Your task to perform on an android device: open app "Paramount+ | Peak Streaming" (install if not already installed) and enter user name: "fostered@yahoo.com" and password: "strong" Image 0: 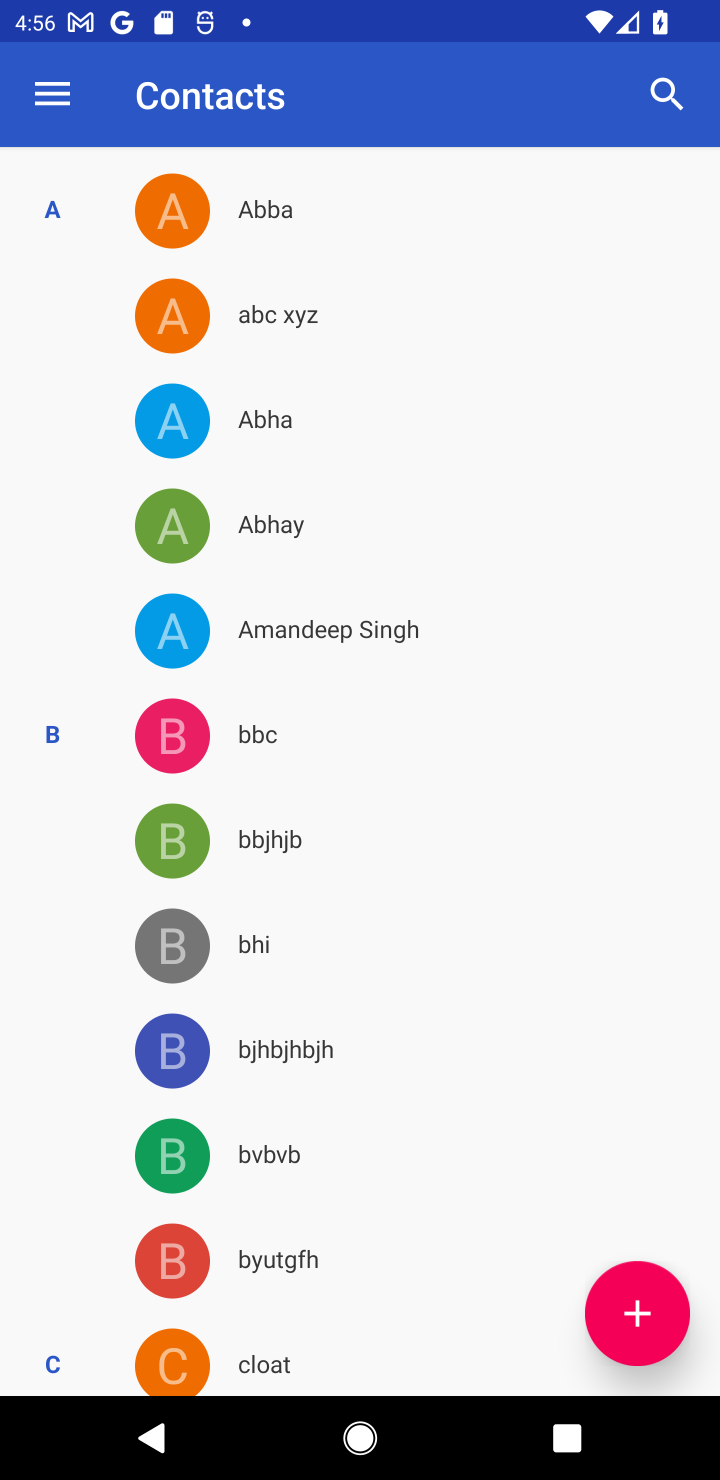
Step 0: press home button
Your task to perform on an android device: open app "Paramount+ | Peak Streaming" (install if not already installed) and enter user name: "fostered@yahoo.com" and password: "strong" Image 1: 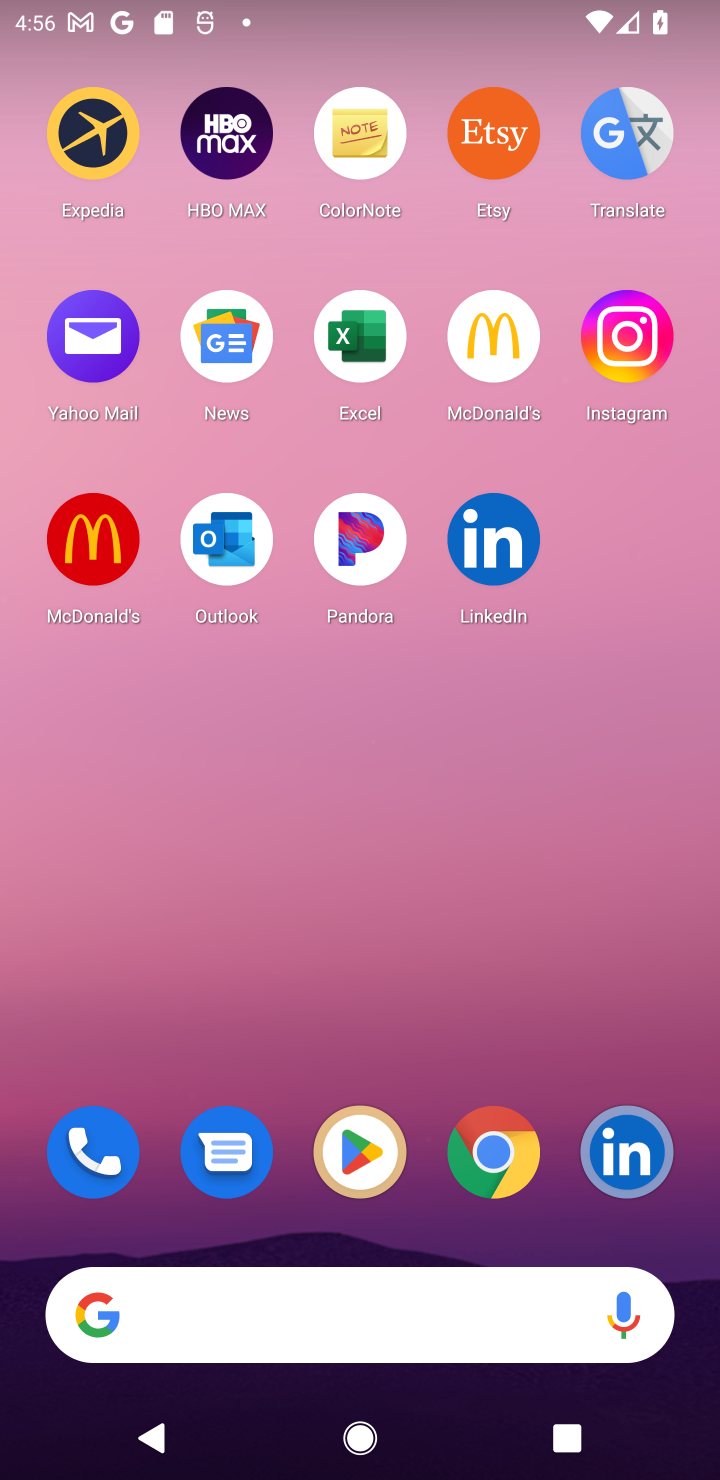
Step 1: click (332, 1135)
Your task to perform on an android device: open app "Paramount+ | Peak Streaming" (install if not already installed) and enter user name: "fostered@yahoo.com" and password: "strong" Image 2: 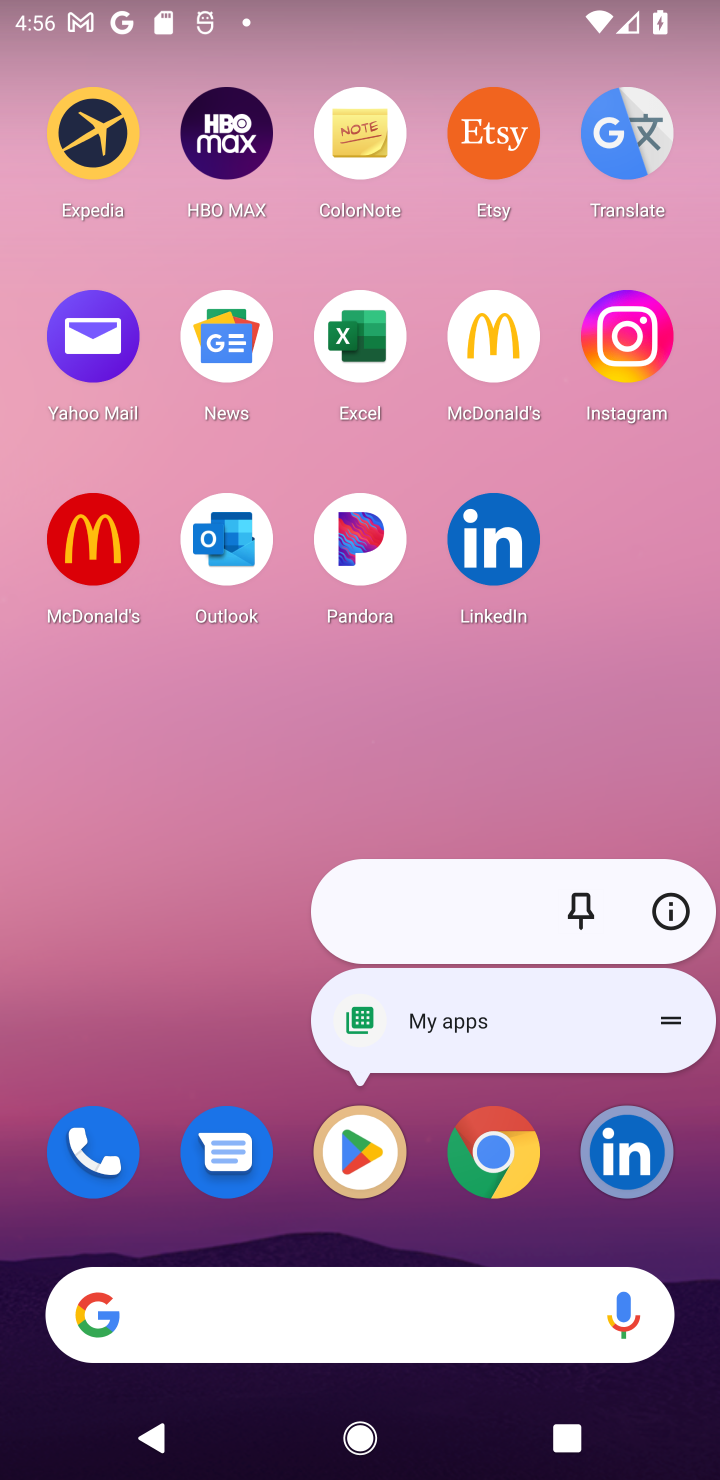
Step 2: click (368, 1172)
Your task to perform on an android device: open app "Paramount+ | Peak Streaming" (install if not already installed) and enter user name: "fostered@yahoo.com" and password: "strong" Image 3: 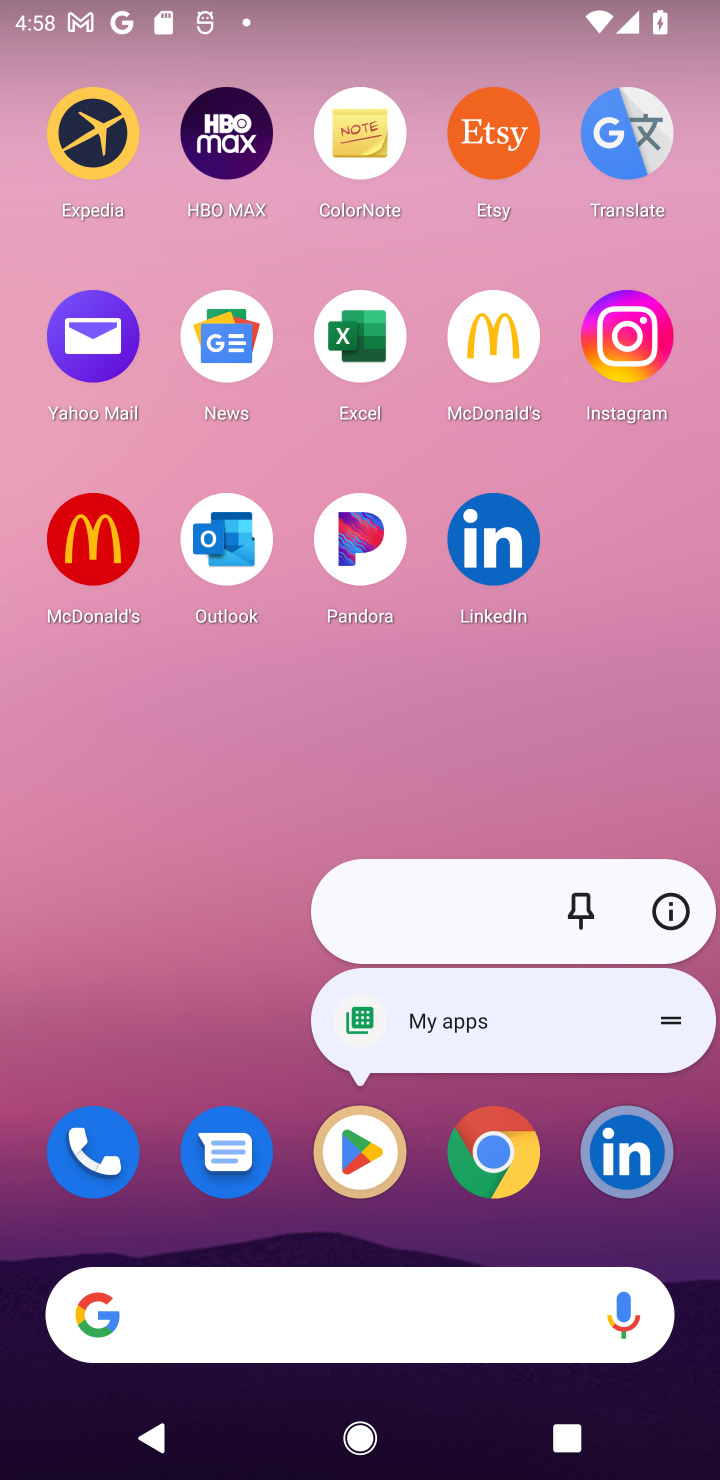
Step 3: click (395, 1147)
Your task to perform on an android device: open app "Paramount+ | Peak Streaming" (install if not already installed) and enter user name: "fostered@yahoo.com" and password: "strong" Image 4: 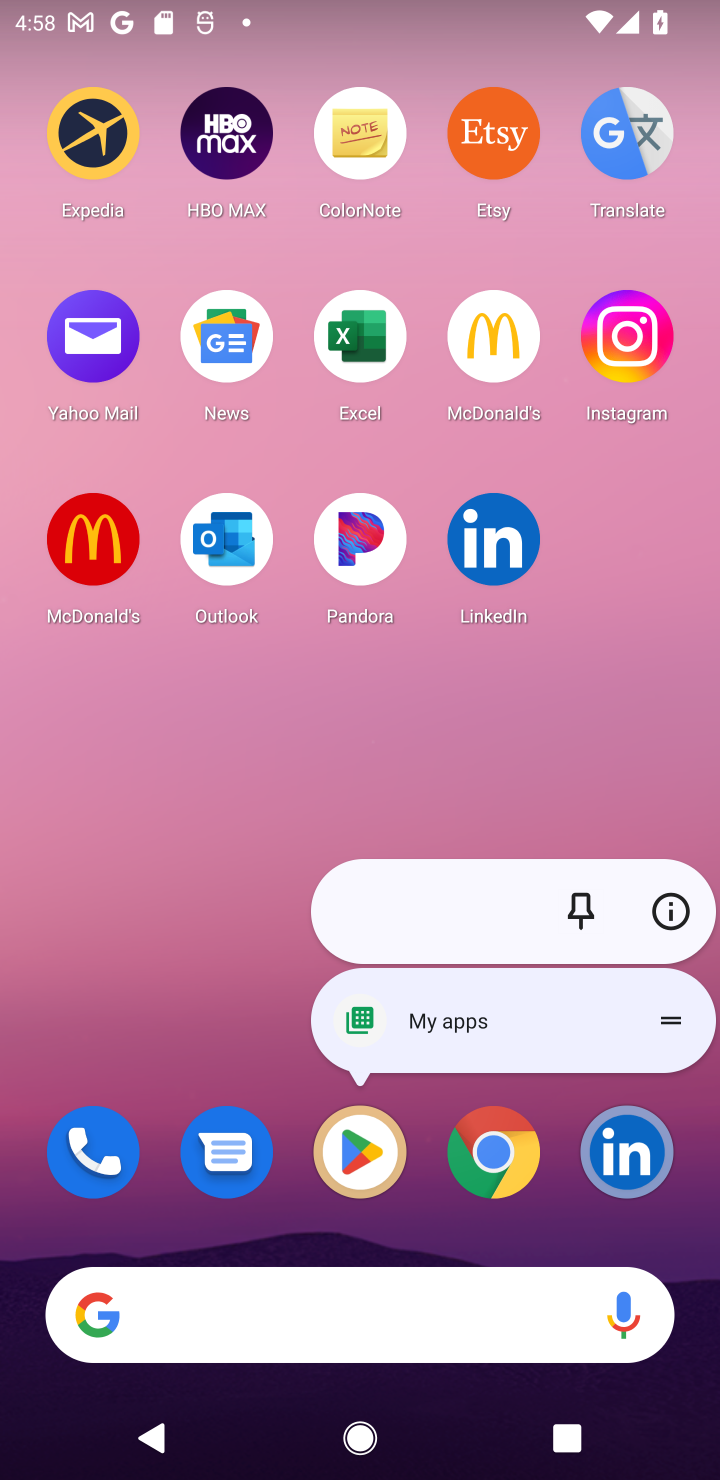
Step 4: click (300, 1150)
Your task to perform on an android device: open app "Paramount+ | Peak Streaming" (install if not already installed) and enter user name: "fostered@yahoo.com" and password: "strong" Image 5: 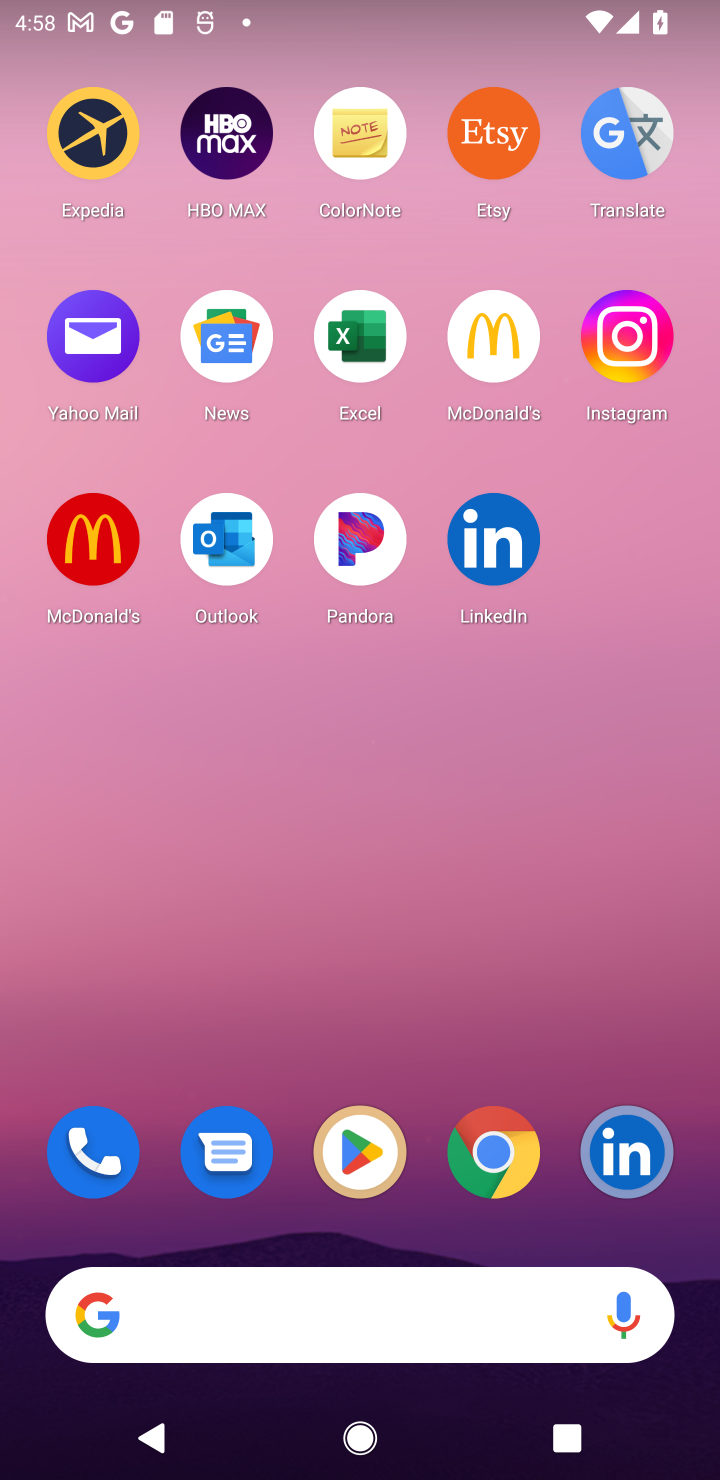
Step 5: click (379, 1151)
Your task to perform on an android device: open app "Paramount+ | Peak Streaming" (install if not already installed) and enter user name: "fostered@yahoo.com" and password: "strong" Image 6: 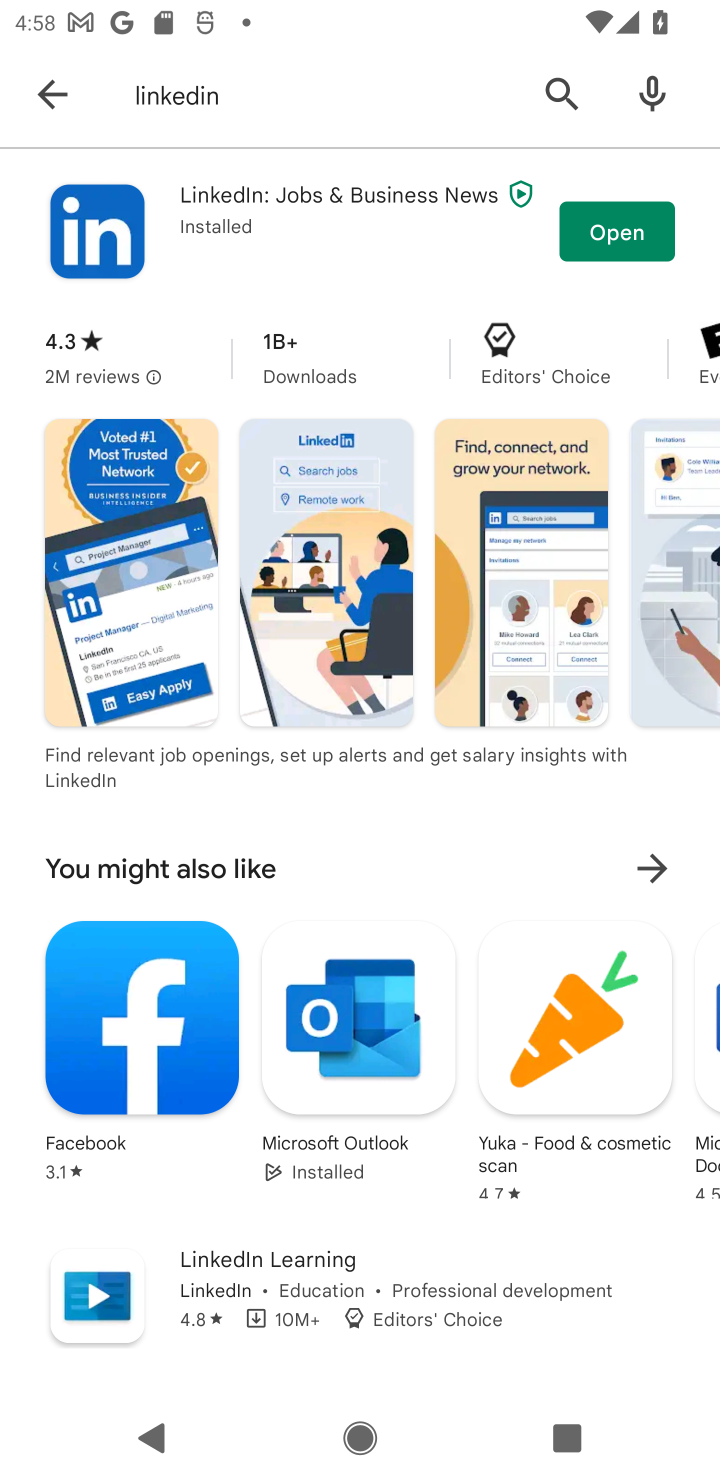
Step 6: click (44, 94)
Your task to perform on an android device: open app "Paramount+ | Peak Streaming" (install if not already installed) and enter user name: "fostered@yahoo.com" and password: "strong" Image 7: 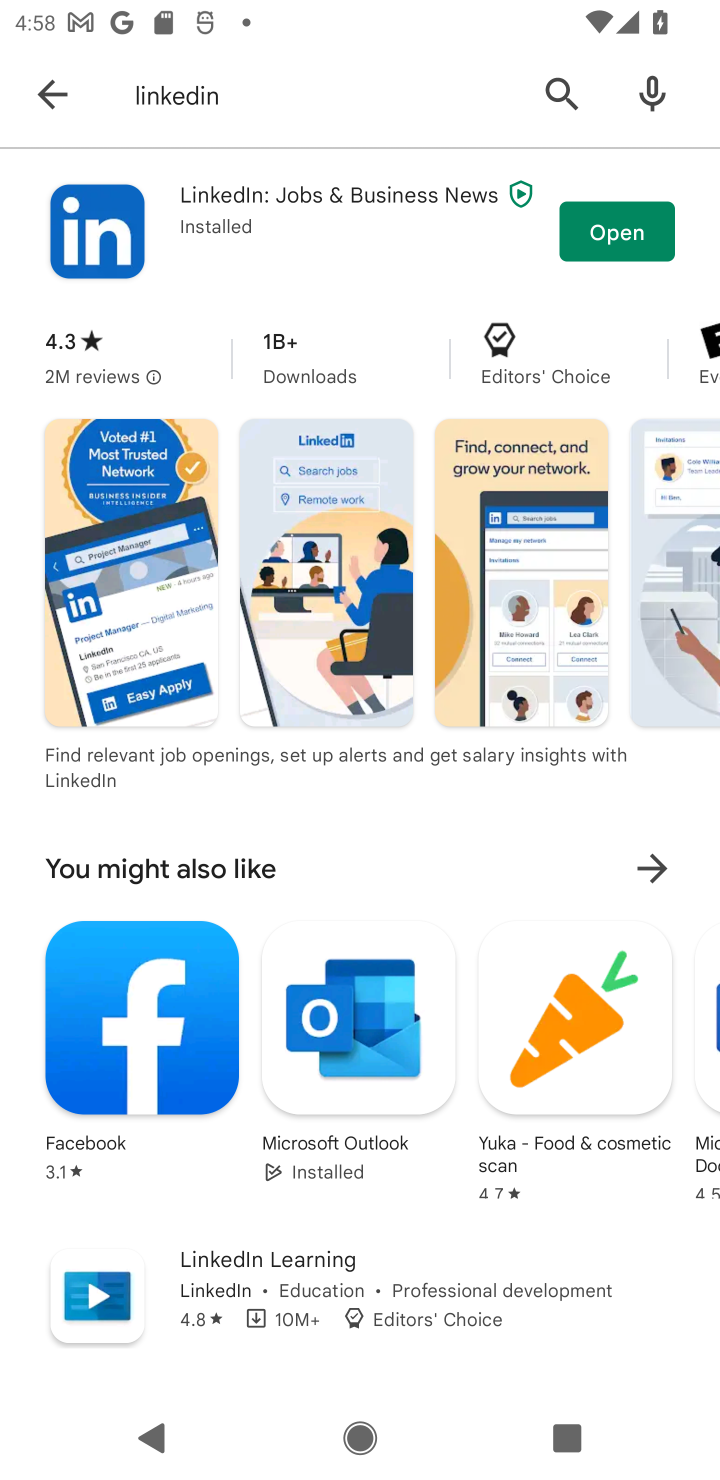
Step 7: click (554, 99)
Your task to perform on an android device: open app "Paramount+ | Peak Streaming" (install if not already installed) and enter user name: "fostered@yahoo.com" and password: "strong" Image 8: 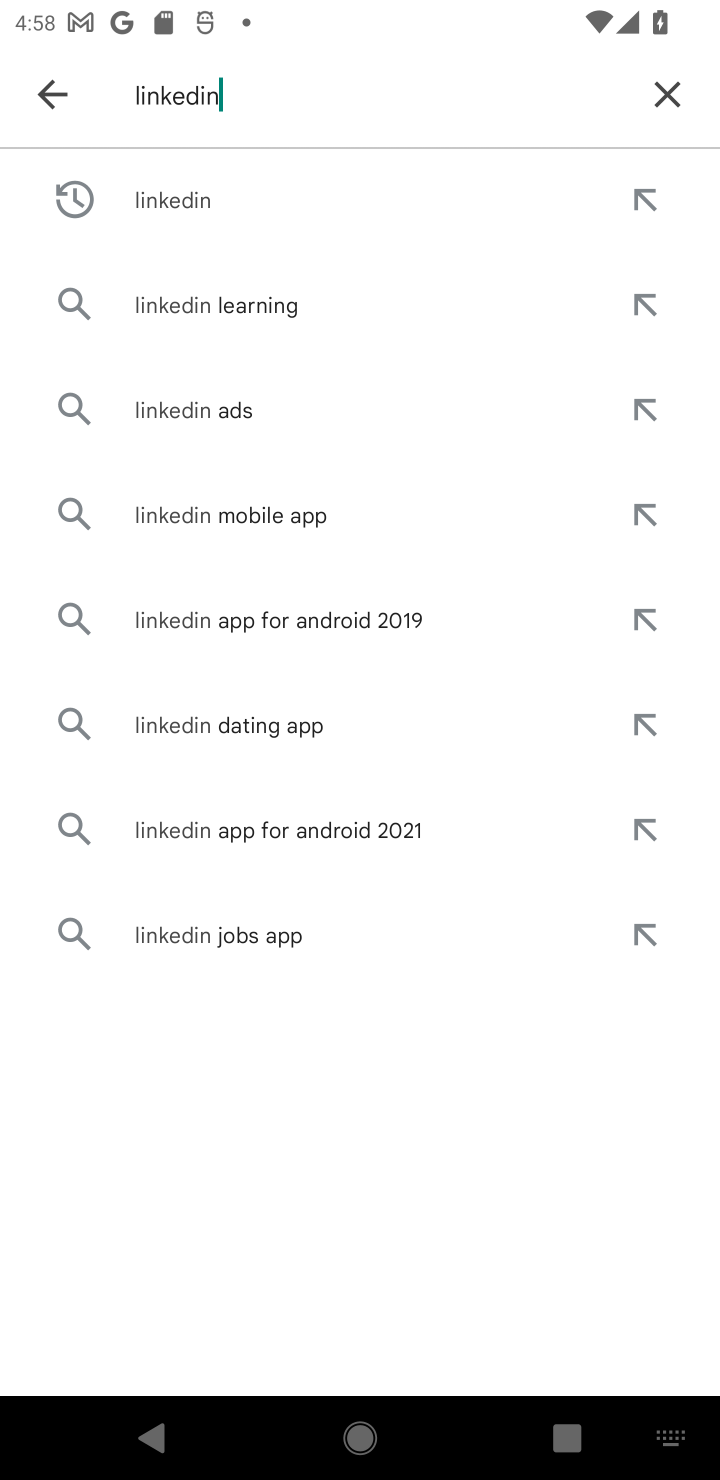
Step 8: click (658, 85)
Your task to perform on an android device: open app "Paramount+ | Peak Streaming" (install if not already installed) and enter user name: "fostered@yahoo.com" and password: "strong" Image 9: 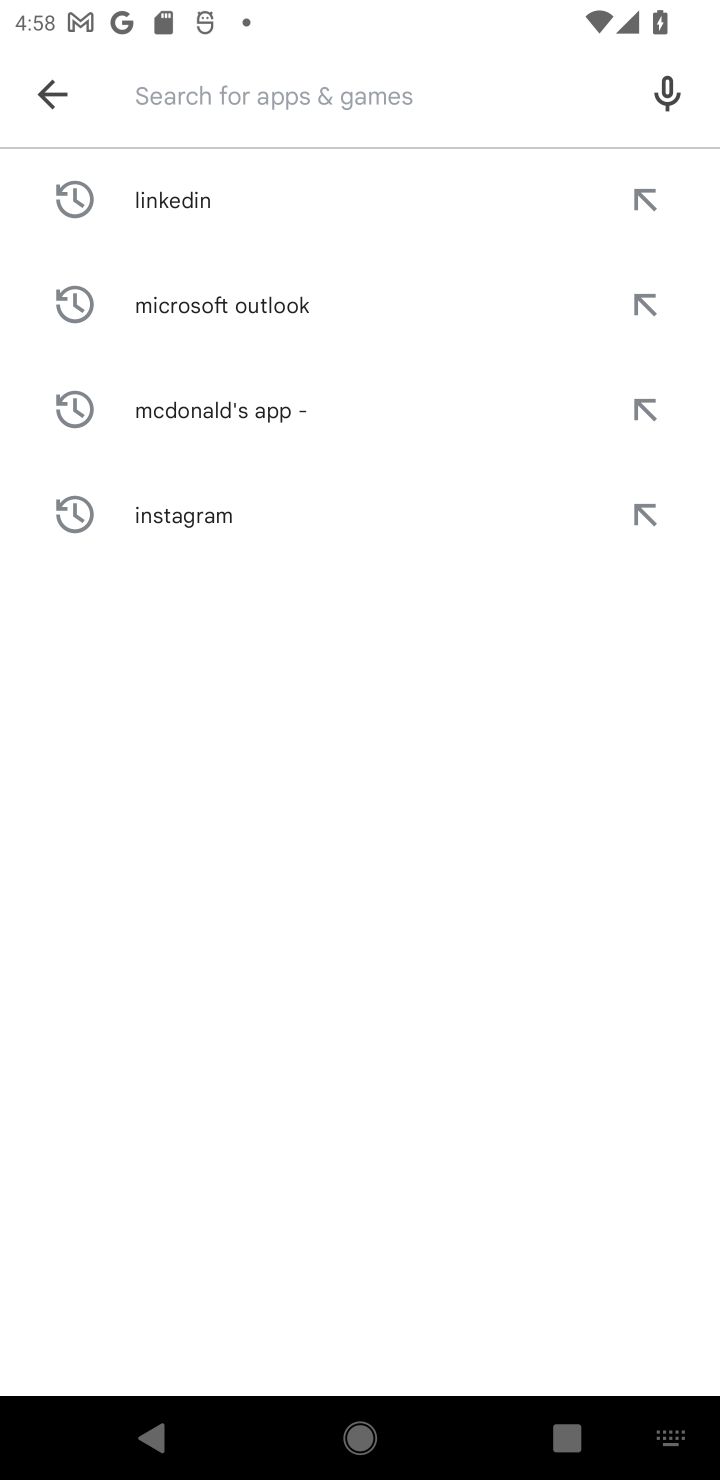
Step 9: type "Paramount+ | Peak Streaming"
Your task to perform on an android device: open app "Paramount+ | Peak Streaming" (install if not already installed) and enter user name: "fostered@yahoo.com" and password: "strong" Image 10: 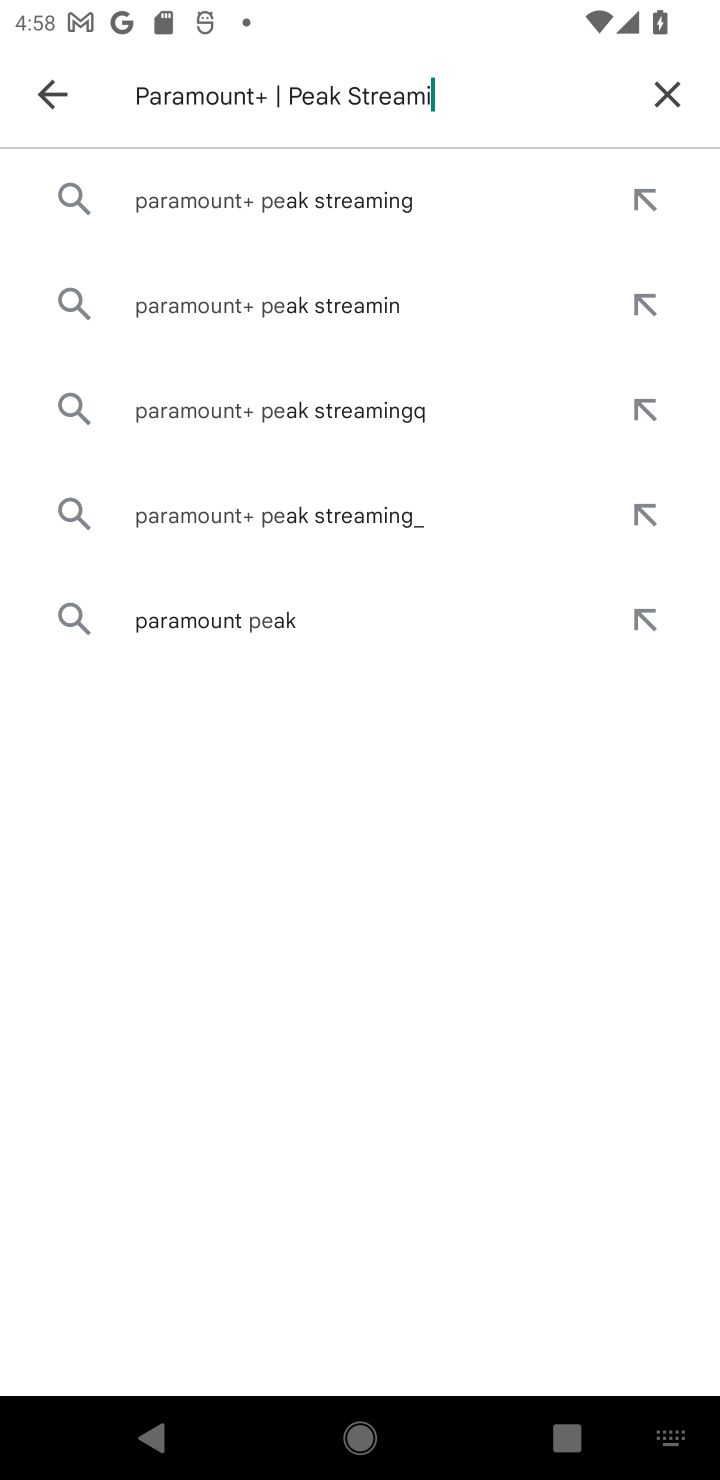
Step 10: type ""
Your task to perform on an android device: open app "Paramount+ | Peak Streaming" (install if not already installed) and enter user name: "fostered@yahoo.com" and password: "strong" Image 11: 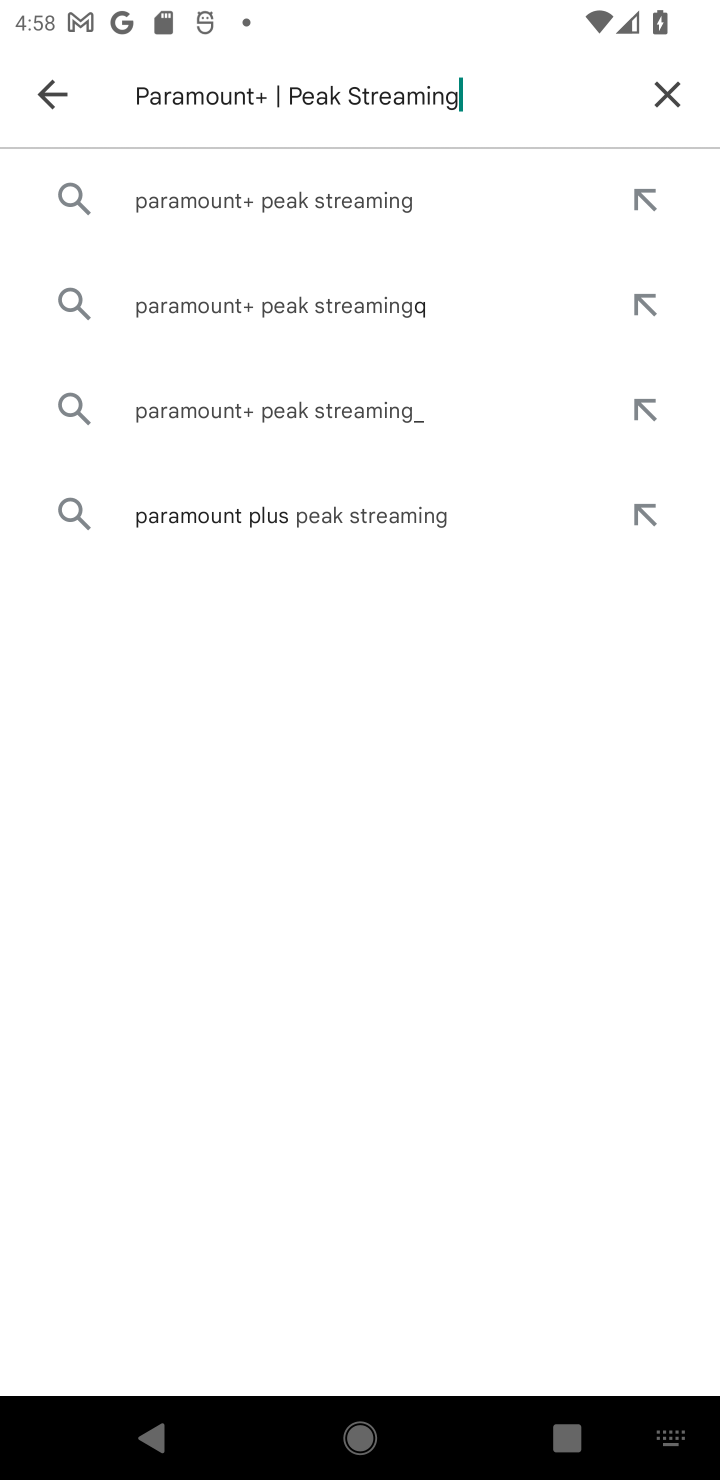
Step 11: click (258, 213)
Your task to perform on an android device: open app "Paramount+ | Peak Streaming" (install if not already installed) and enter user name: "fostered@yahoo.com" and password: "strong" Image 12: 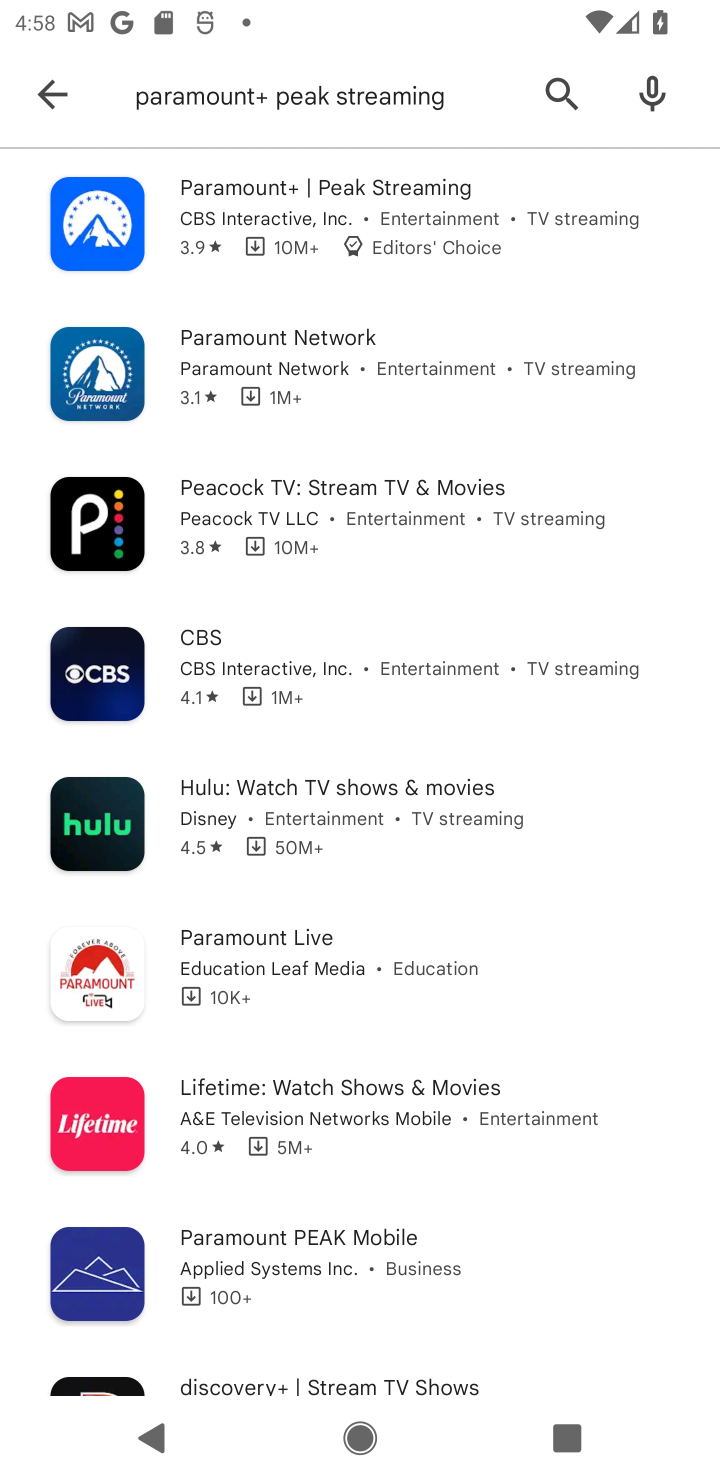
Step 12: click (358, 244)
Your task to perform on an android device: open app "Paramount+ | Peak Streaming" (install if not already installed) and enter user name: "fostered@yahoo.com" and password: "strong" Image 13: 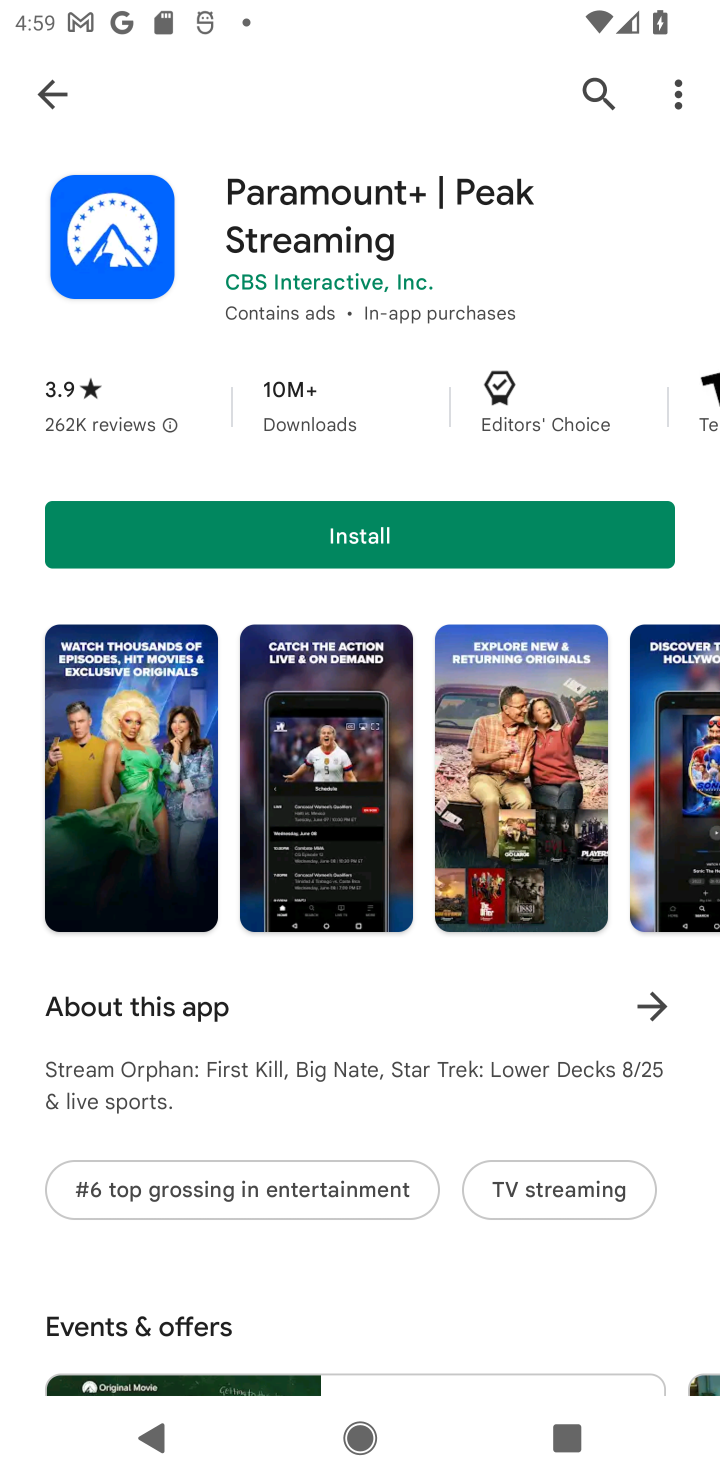
Step 13: click (312, 516)
Your task to perform on an android device: open app "Paramount+ | Peak Streaming" (install if not already installed) and enter user name: "fostered@yahoo.com" and password: "strong" Image 14: 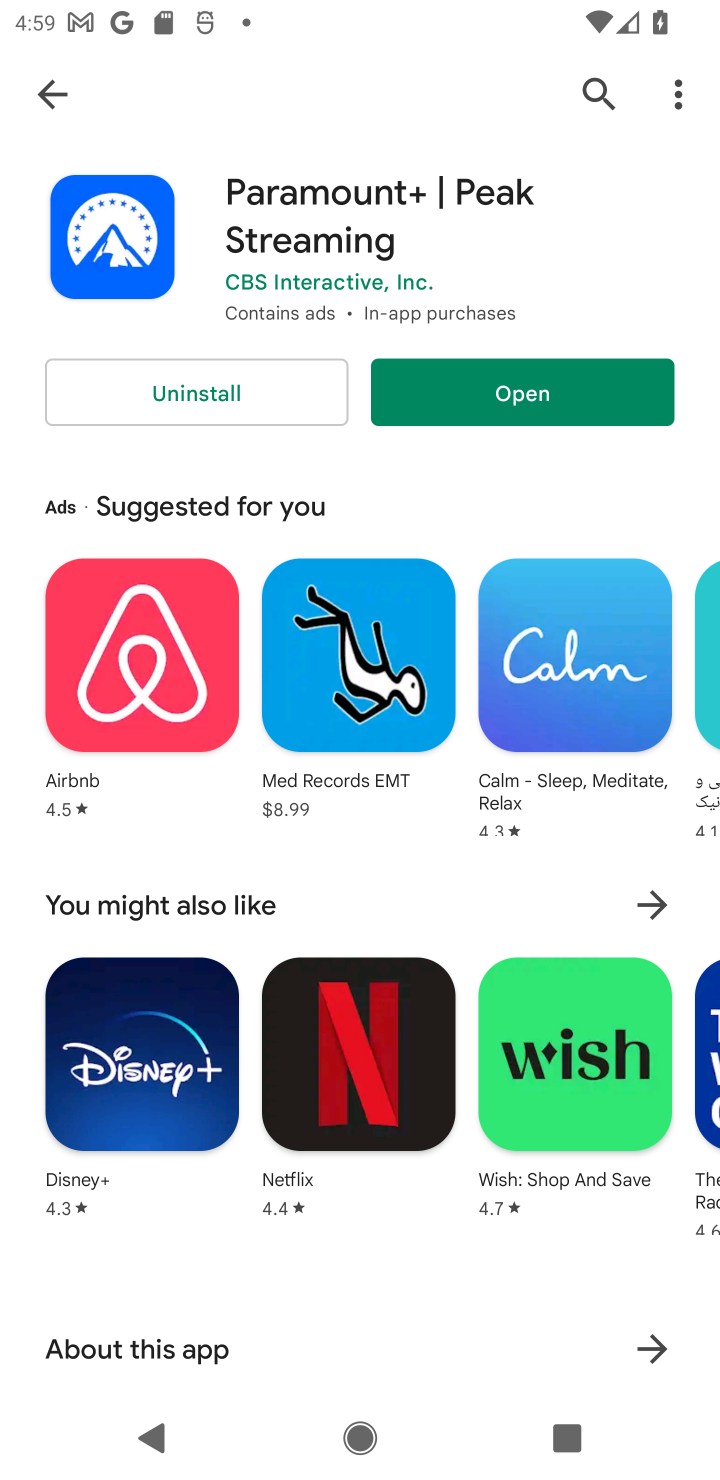
Step 14: click (646, 376)
Your task to perform on an android device: open app "Paramount+ | Peak Streaming" (install if not already installed) and enter user name: "fostered@yahoo.com" and password: "strong" Image 15: 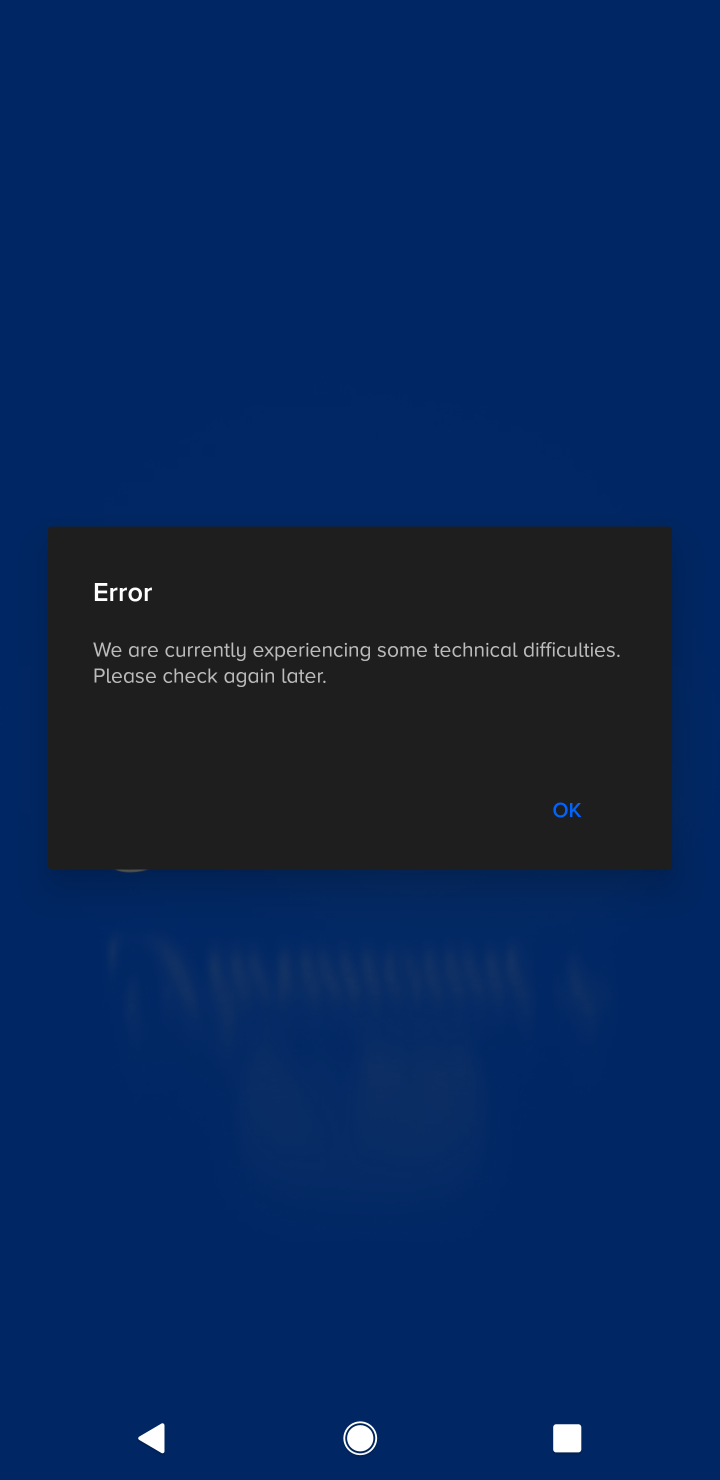
Step 15: click (584, 814)
Your task to perform on an android device: open app "Paramount+ | Peak Streaming" (install if not already installed) and enter user name: "fostered@yahoo.com" and password: "strong" Image 16: 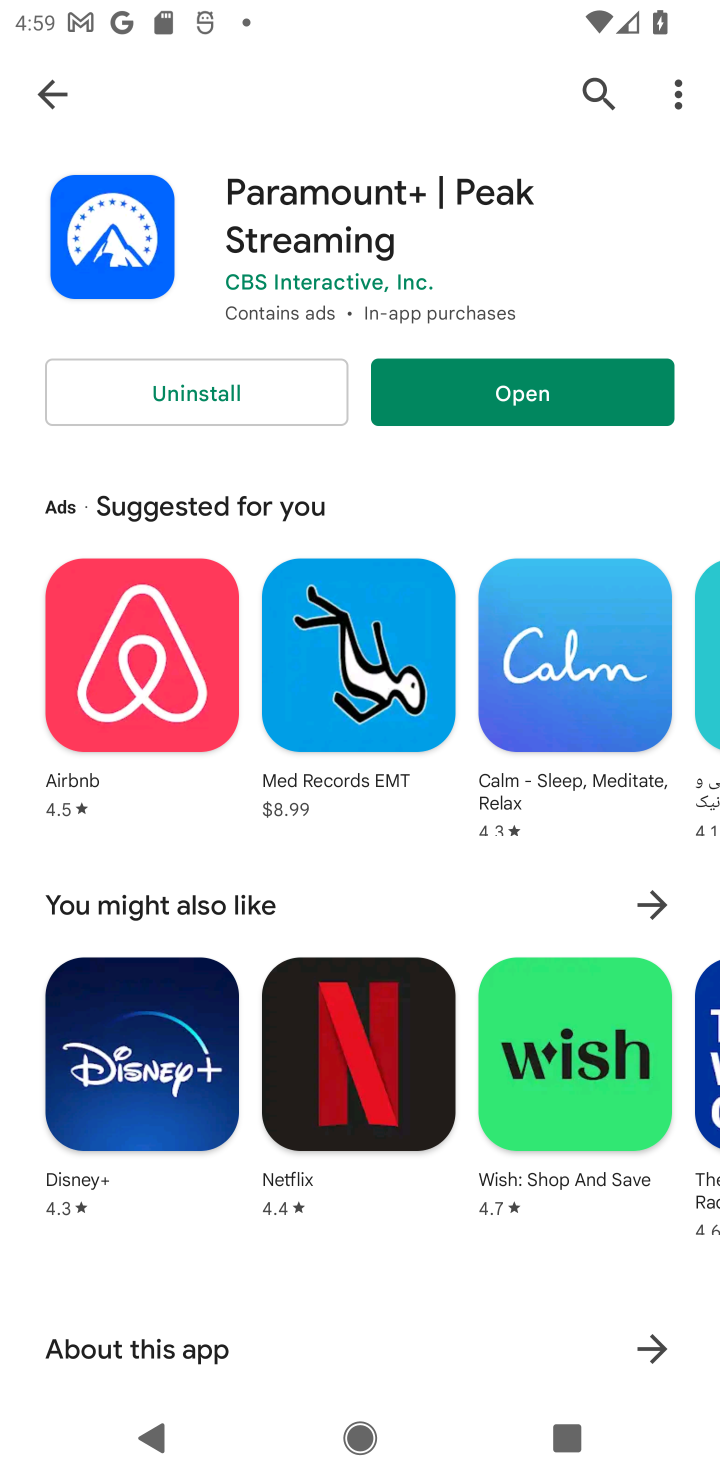
Step 16: task complete